Your task to perform on an android device: install app "Google Drive" Image 0: 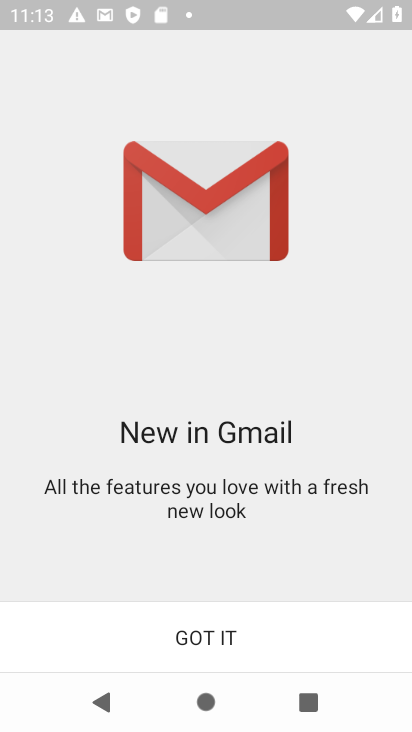
Step 0: press home button
Your task to perform on an android device: install app "Google Drive" Image 1: 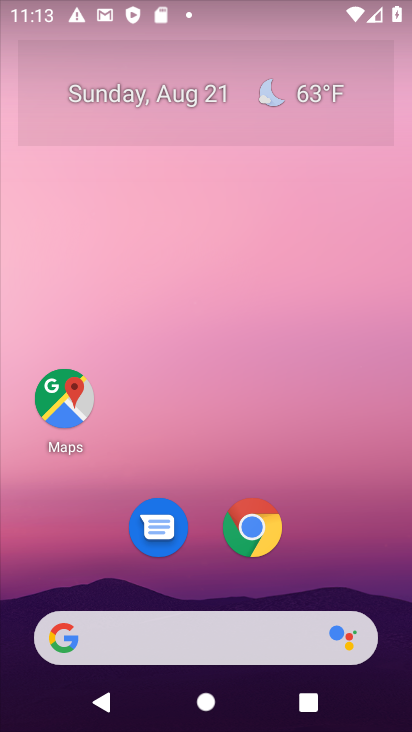
Step 1: drag from (277, 550) to (243, 13)
Your task to perform on an android device: install app "Google Drive" Image 2: 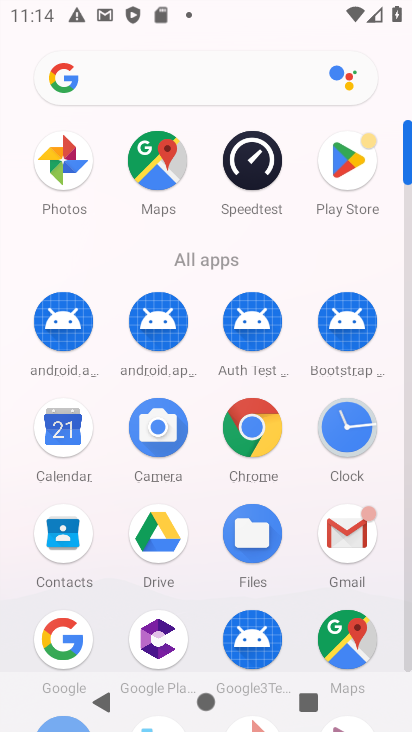
Step 2: click (366, 148)
Your task to perform on an android device: install app "Google Drive" Image 3: 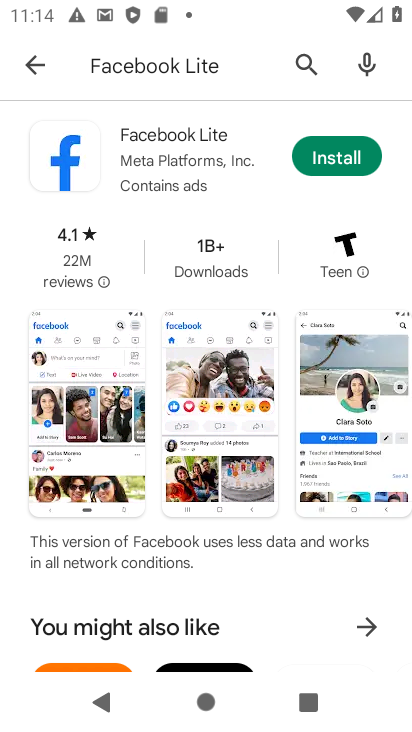
Step 3: click (32, 70)
Your task to perform on an android device: install app "Google Drive" Image 4: 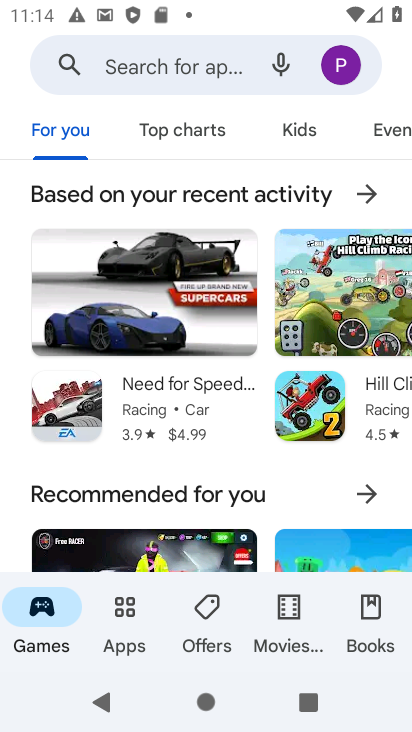
Step 4: click (132, 81)
Your task to perform on an android device: install app "Google Drive" Image 5: 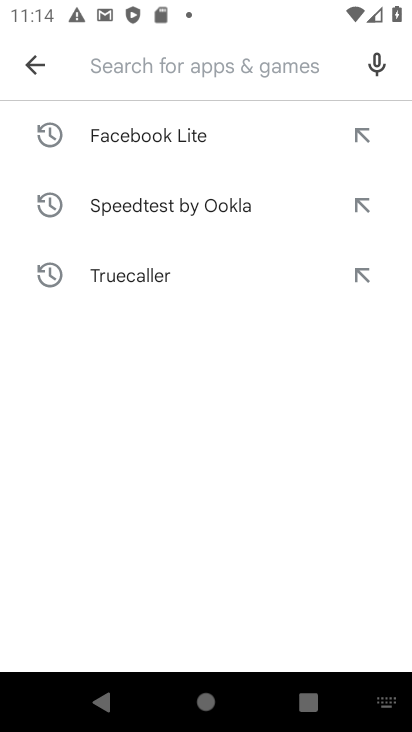
Step 5: type "Google Drive"
Your task to perform on an android device: install app "Google Drive" Image 6: 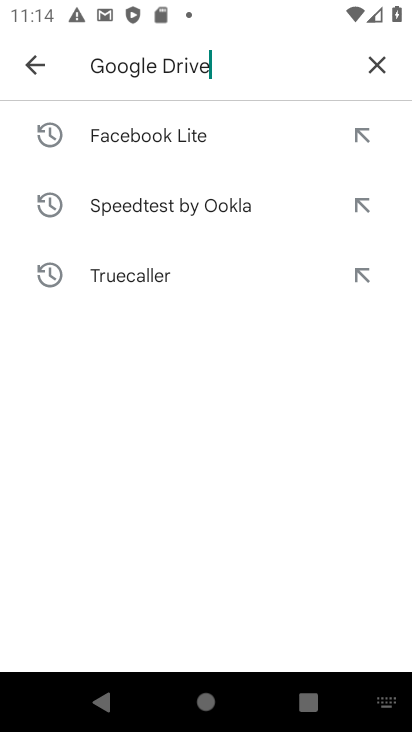
Step 6: press enter
Your task to perform on an android device: install app "Google Drive" Image 7: 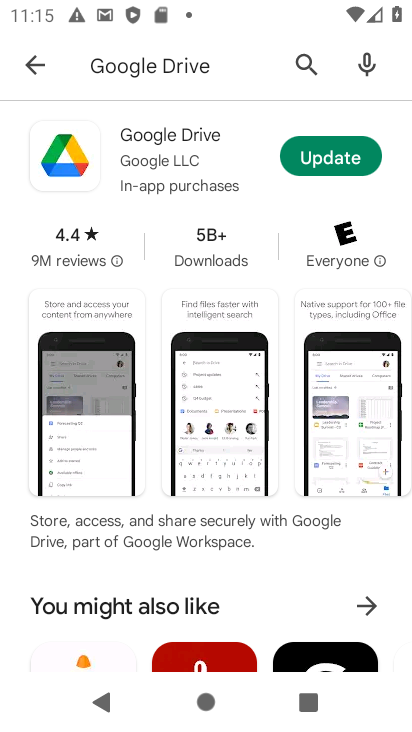
Step 7: click (350, 153)
Your task to perform on an android device: install app "Google Drive" Image 8: 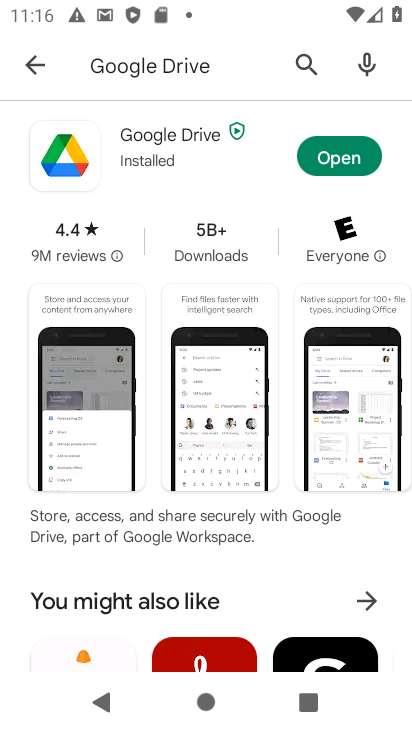
Step 8: click (324, 148)
Your task to perform on an android device: install app "Google Drive" Image 9: 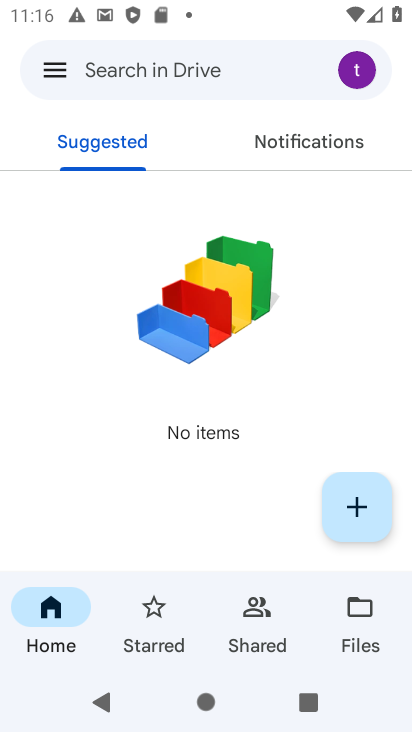
Step 9: task complete